Your task to perform on an android device: Open Reddit.com Image 0: 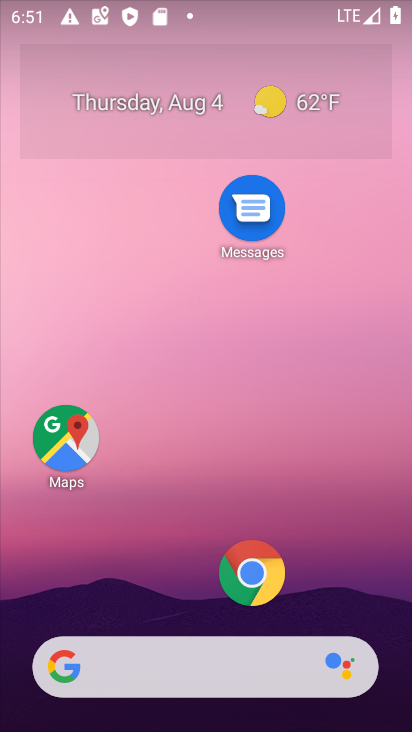
Step 0: click (237, 54)
Your task to perform on an android device: Open Reddit.com Image 1: 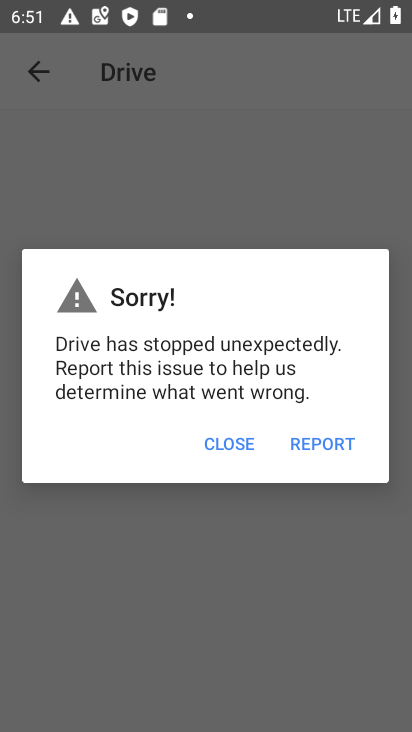
Step 1: click (224, 449)
Your task to perform on an android device: Open Reddit.com Image 2: 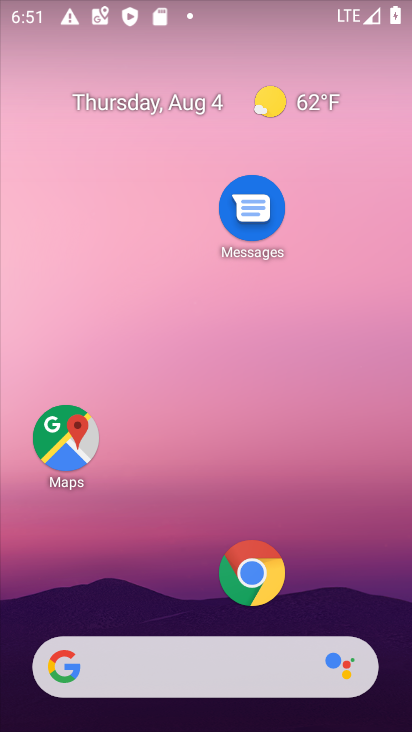
Step 2: click (54, 668)
Your task to perform on an android device: Open Reddit.com Image 3: 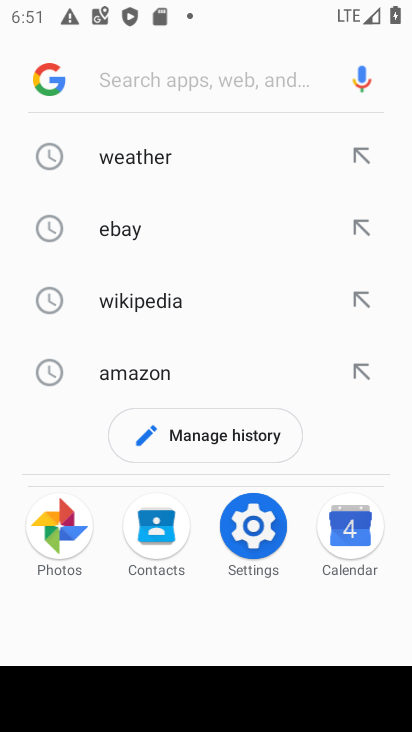
Step 3: type "Reddit.com"
Your task to perform on an android device: Open Reddit.com Image 4: 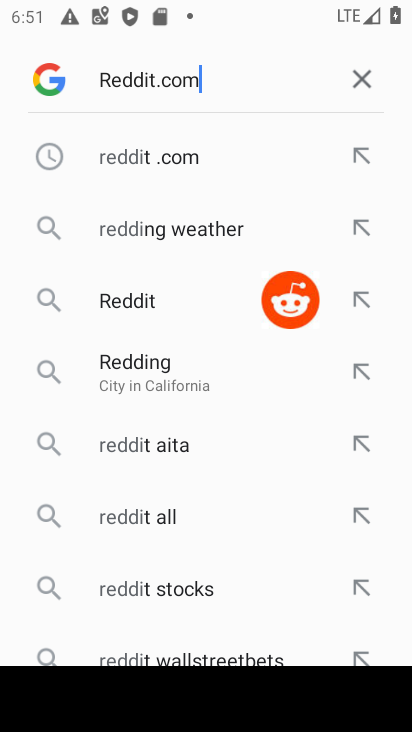
Step 4: press enter
Your task to perform on an android device: Open Reddit.com Image 5: 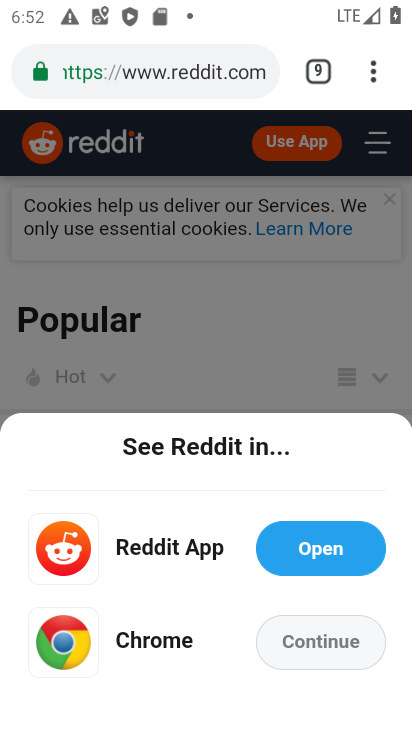
Step 5: task complete